Your task to perform on an android device: Open sound settings Image 0: 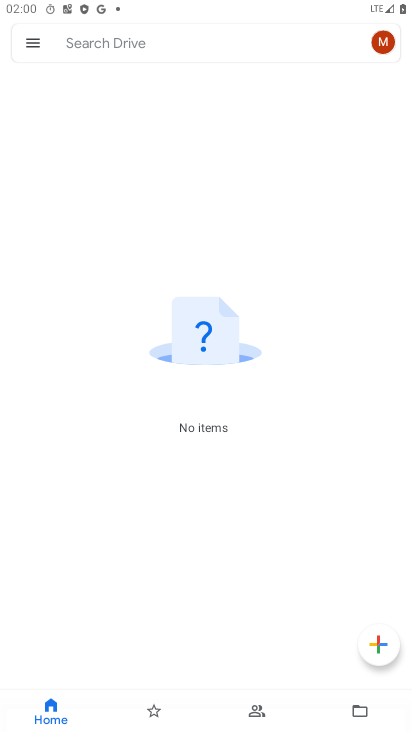
Step 0: press home button
Your task to perform on an android device: Open sound settings Image 1: 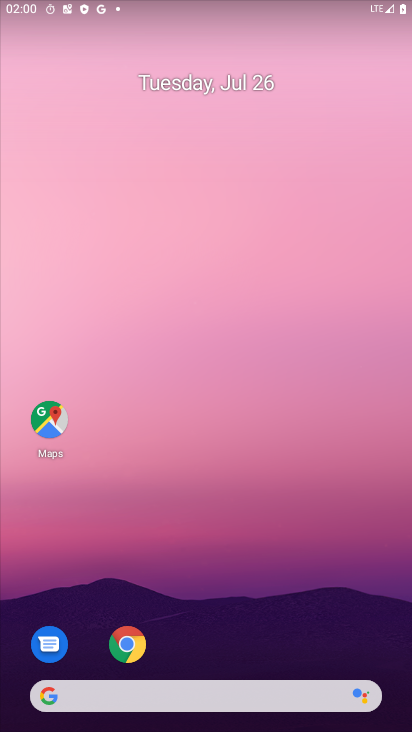
Step 1: drag from (215, 665) to (209, 69)
Your task to perform on an android device: Open sound settings Image 2: 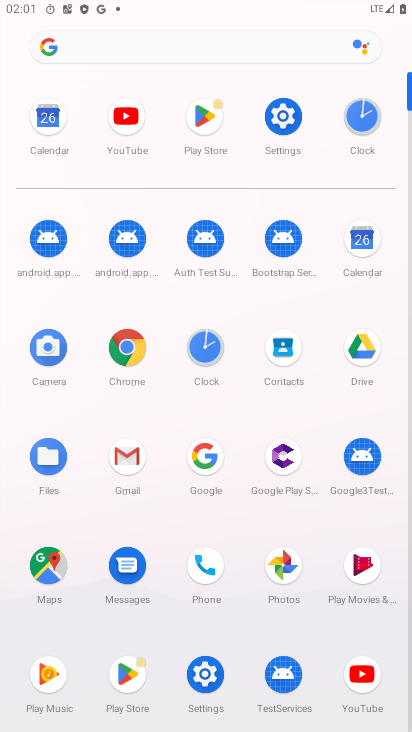
Step 2: click (277, 115)
Your task to perform on an android device: Open sound settings Image 3: 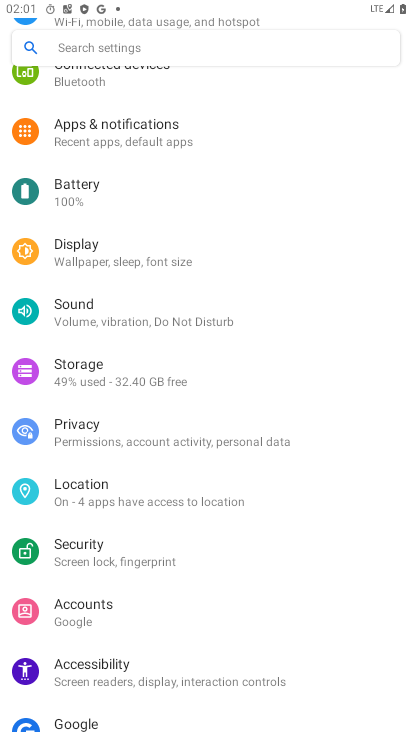
Step 3: click (67, 309)
Your task to perform on an android device: Open sound settings Image 4: 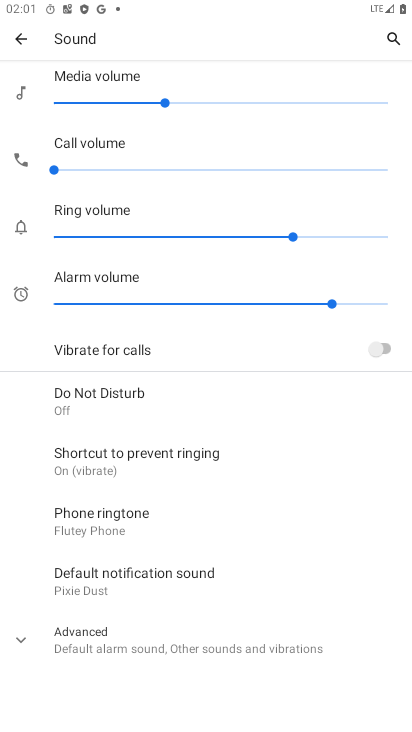
Step 4: task complete